Your task to perform on an android device: turn on notifications settings in the gmail app Image 0: 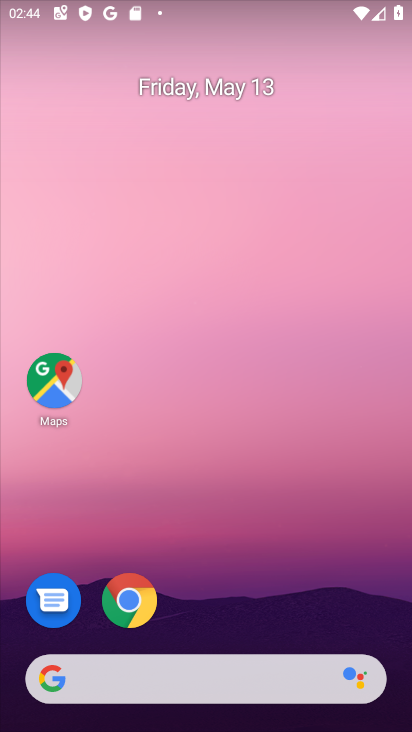
Step 0: drag from (193, 606) to (233, 130)
Your task to perform on an android device: turn on notifications settings in the gmail app Image 1: 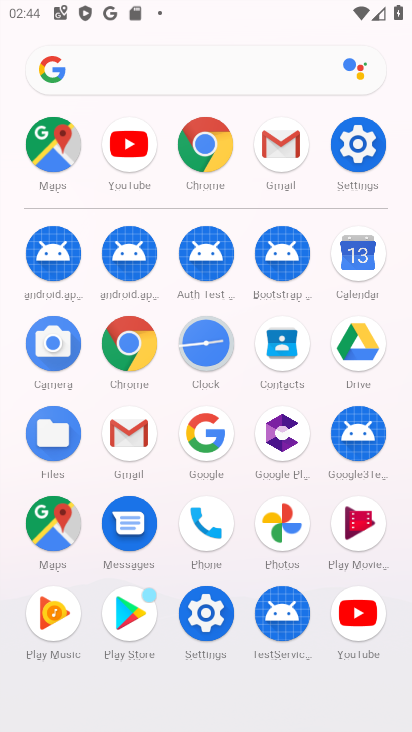
Step 1: click (127, 436)
Your task to perform on an android device: turn on notifications settings in the gmail app Image 2: 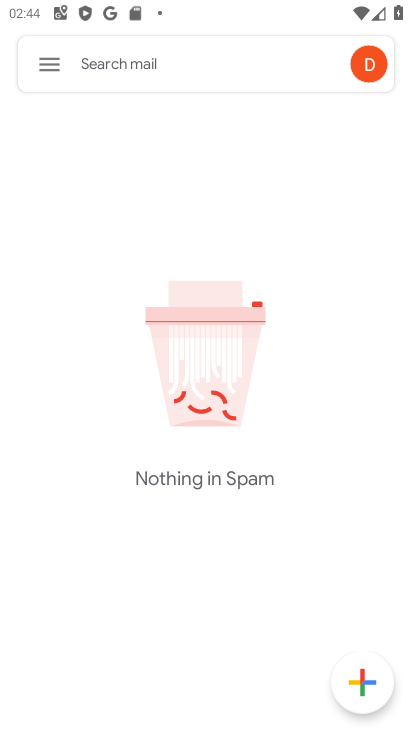
Step 2: click (35, 58)
Your task to perform on an android device: turn on notifications settings in the gmail app Image 3: 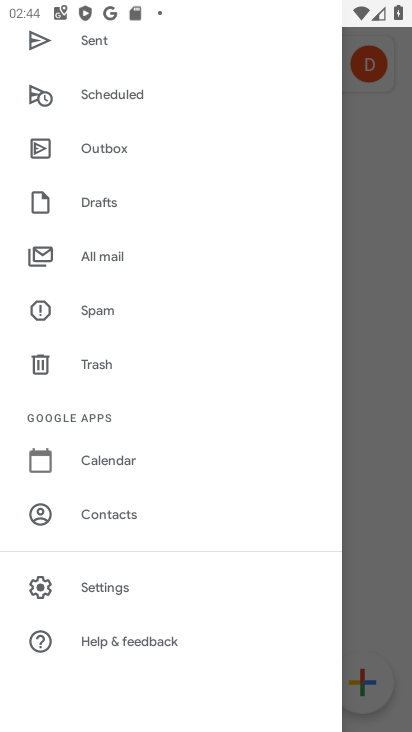
Step 3: click (132, 587)
Your task to perform on an android device: turn on notifications settings in the gmail app Image 4: 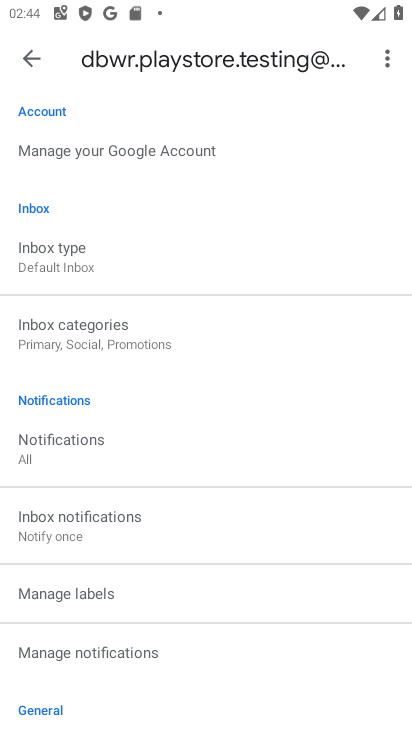
Step 4: click (123, 640)
Your task to perform on an android device: turn on notifications settings in the gmail app Image 5: 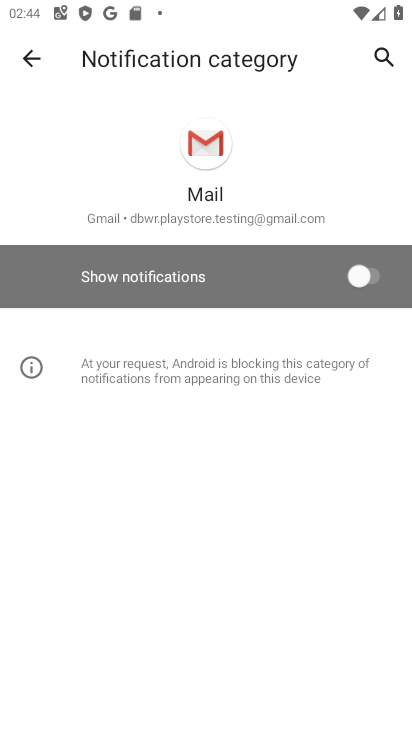
Step 5: click (329, 274)
Your task to perform on an android device: turn on notifications settings in the gmail app Image 6: 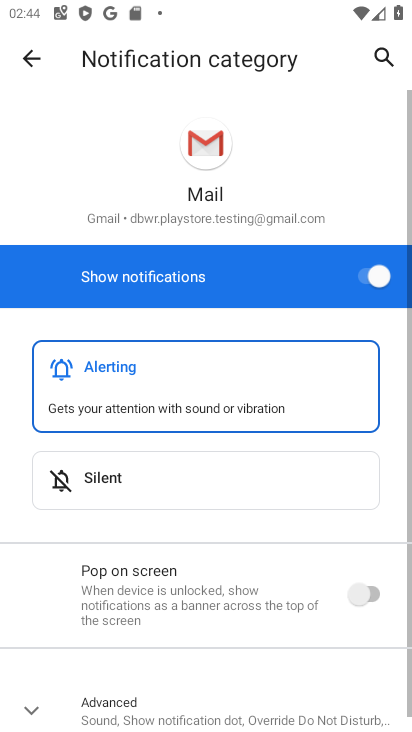
Step 6: task complete